Your task to perform on an android device: turn pop-ups off in chrome Image 0: 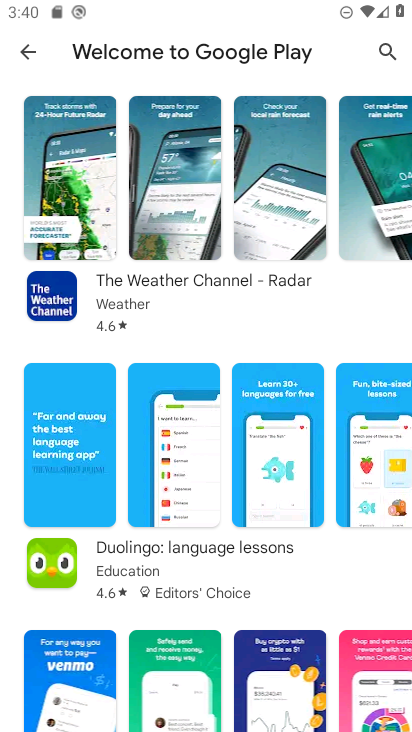
Step 0: press home button
Your task to perform on an android device: turn pop-ups off in chrome Image 1: 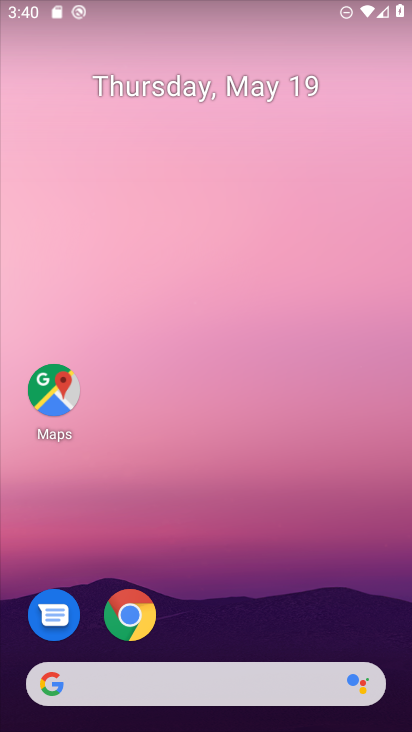
Step 1: click (149, 616)
Your task to perform on an android device: turn pop-ups off in chrome Image 2: 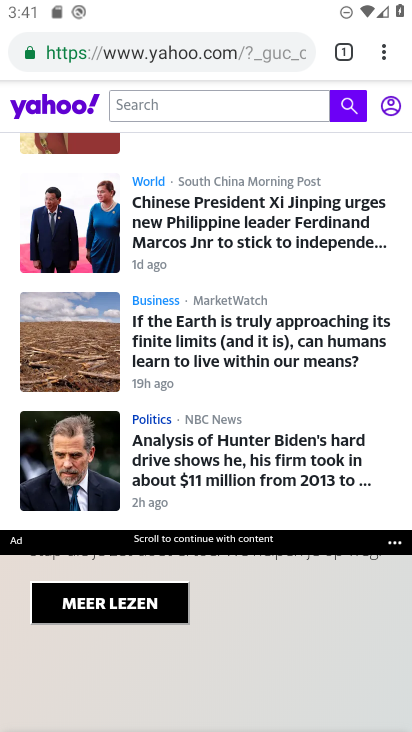
Step 2: click (380, 48)
Your task to perform on an android device: turn pop-ups off in chrome Image 3: 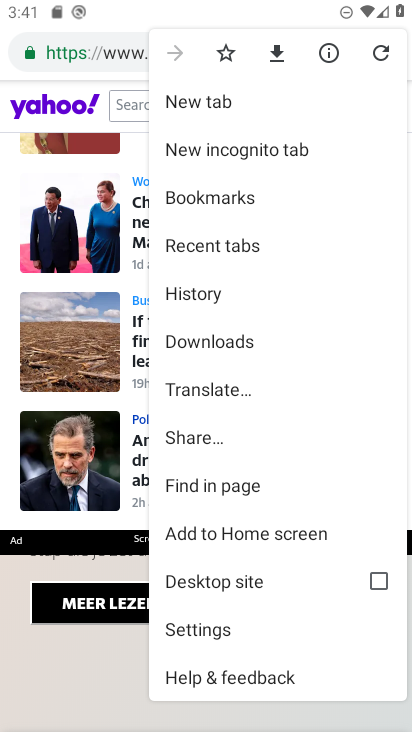
Step 3: click (275, 636)
Your task to perform on an android device: turn pop-ups off in chrome Image 4: 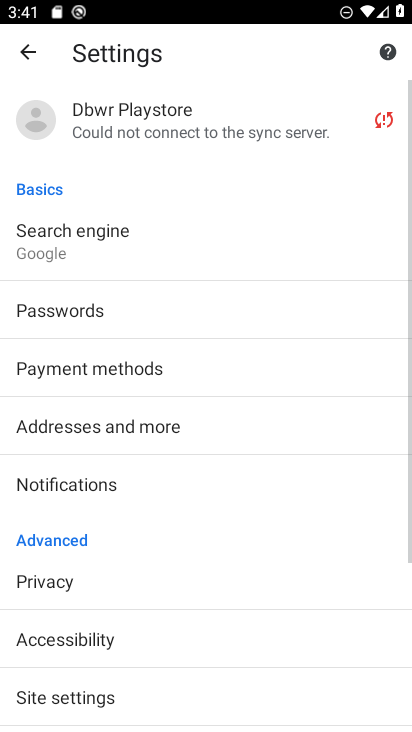
Step 4: drag from (169, 657) to (202, 241)
Your task to perform on an android device: turn pop-ups off in chrome Image 5: 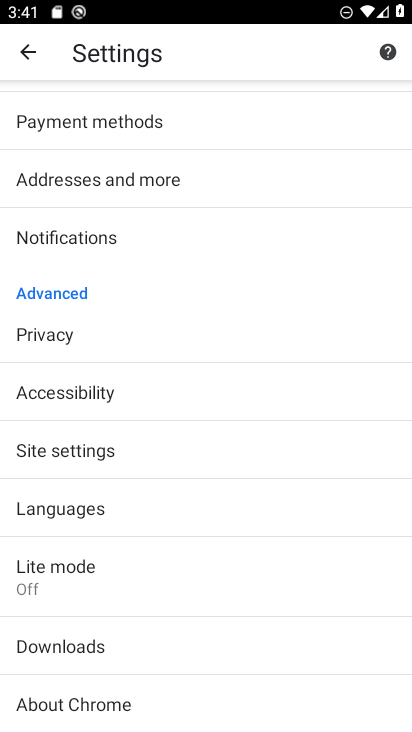
Step 5: drag from (164, 413) to (194, 466)
Your task to perform on an android device: turn pop-ups off in chrome Image 6: 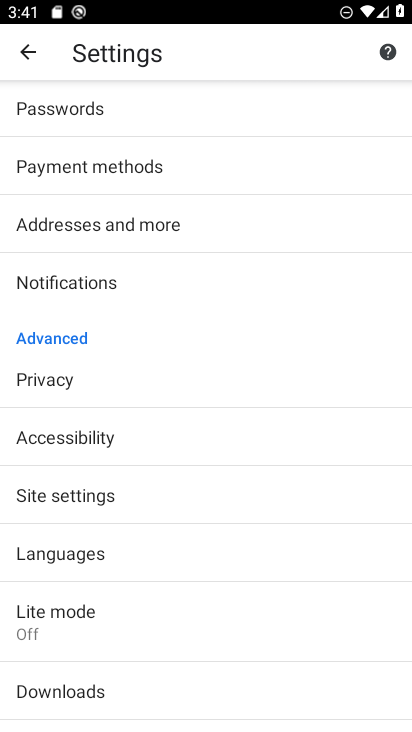
Step 6: click (197, 499)
Your task to perform on an android device: turn pop-ups off in chrome Image 7: 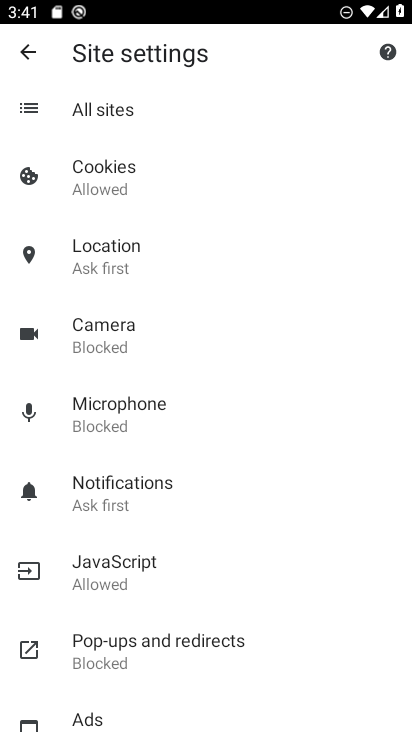
Step 7: click (292, 650)
Your task to perform on an android device: turn pop-ups off in chrome Image 8: 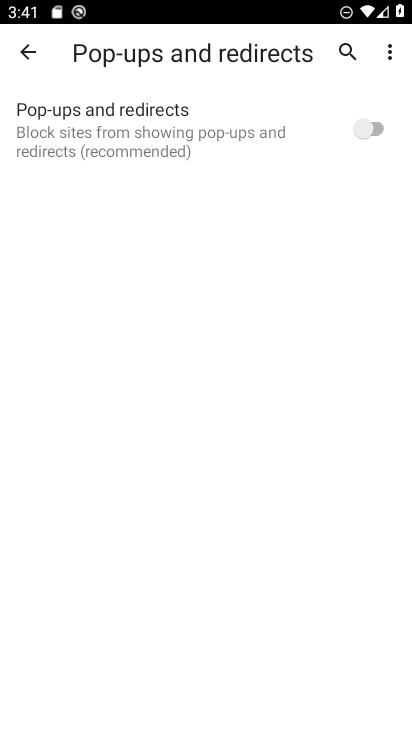
Step 8: task complete